Your task to perform on an android device: change the clock display to analog Image 0: 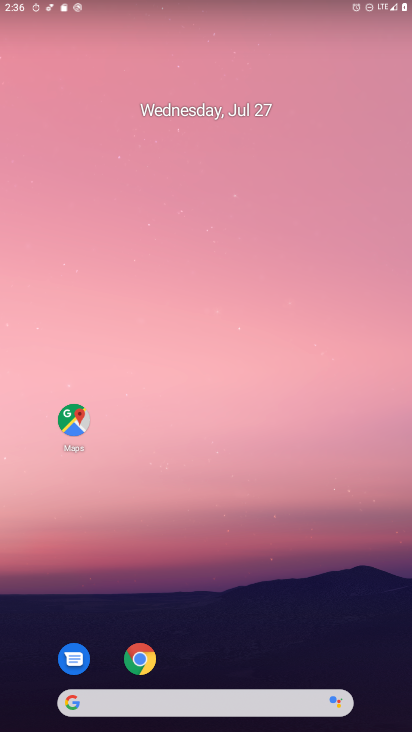
Step 0: drag from (287, 598) to (214, 9)
Your task to perform on an android device: change the clock display to analog Image 1: 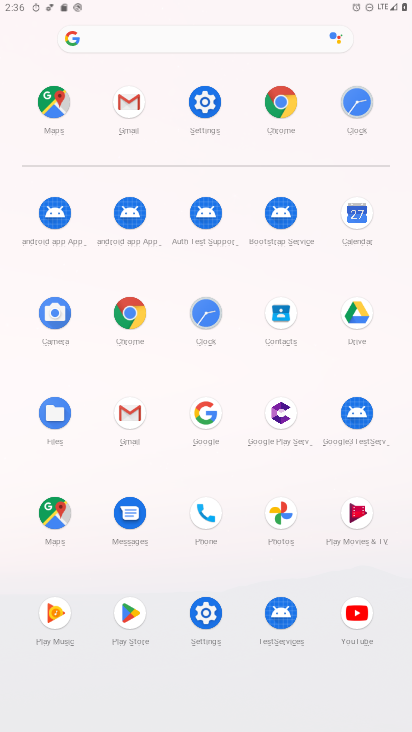
Step 1: click (209, 314)
Your task to perform on an android device: change the clock display to analog Image 2: 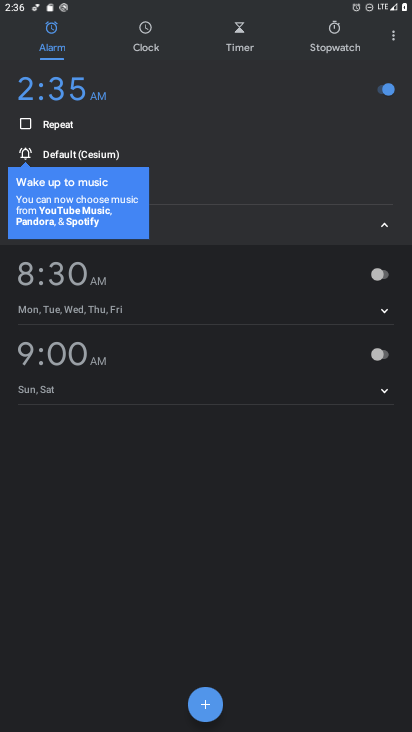
Step 2: click (391, 32)
Your task to perform on an android device: change the clock display to analog Image 3: 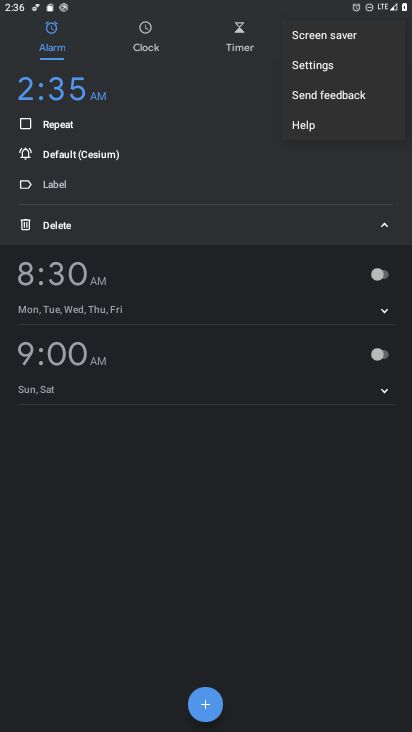
Step 3: click (325, 74)
Your task to perform on an android device: change the clock display to analog Image 4: 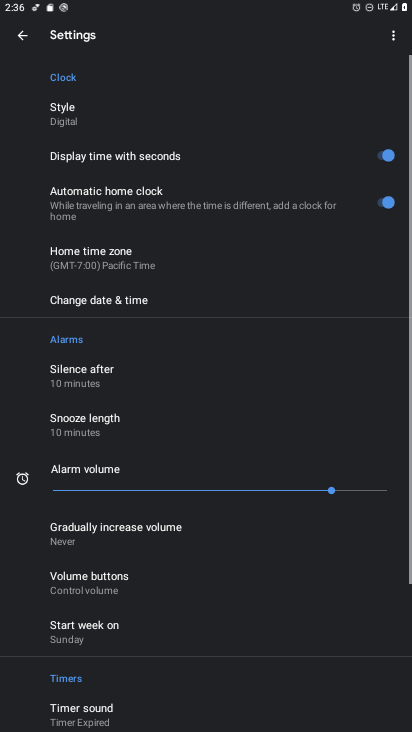
Step 4: click (89, 117)
Your task to perform on an android device: change the clock display to analog Image 5: 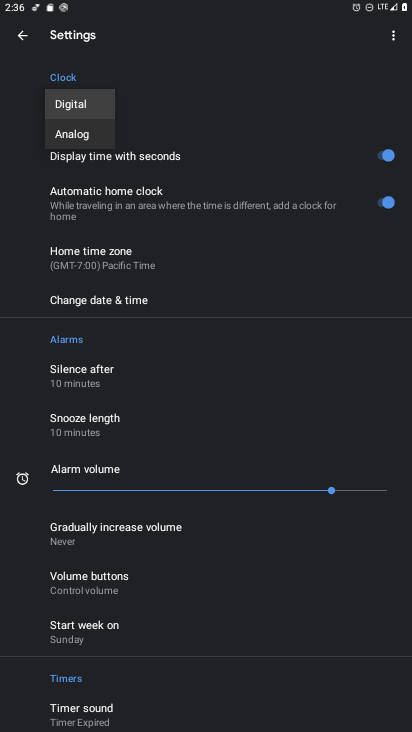
Step 5: click (106, 139)
Your task to perform on an android device: change the clock display to analog Image 6: 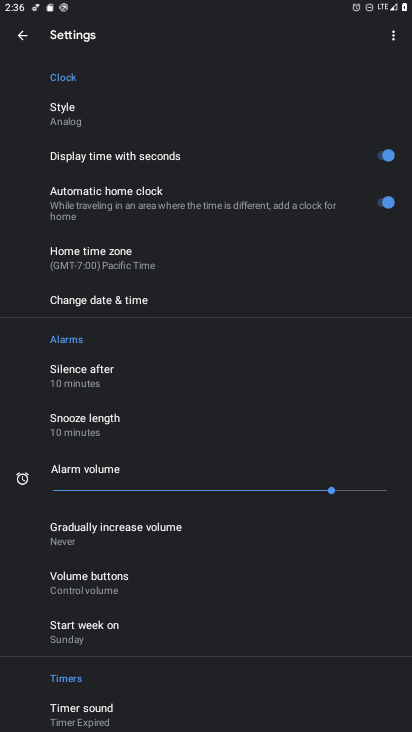
Step 6: task complete